Your task to perform on an android device: What's on my calendar today? Image 0: 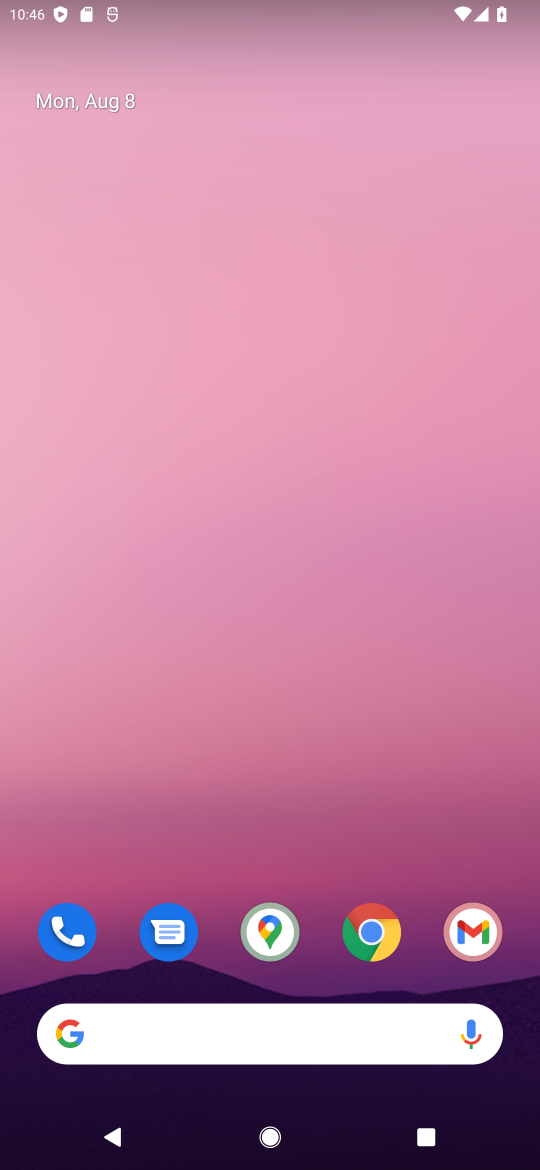
Step 0: click (98, 95)
Your task to perform on an android device: What's on my calendar today? Image 1: 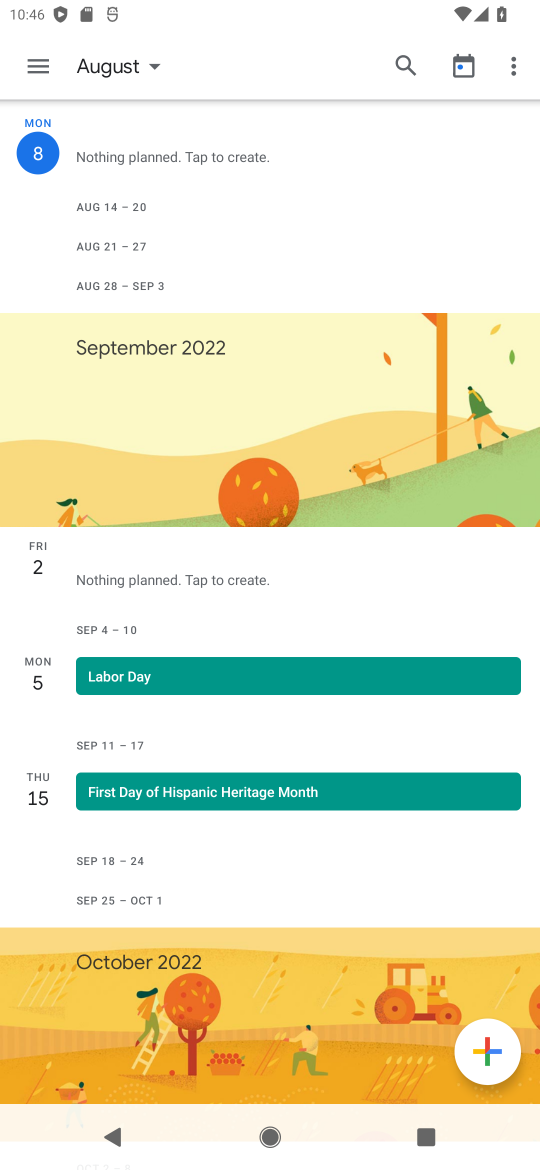
Step 1: task complete